Your task to perform on an android device: turn off notifications settings in the gmail app Image 0: 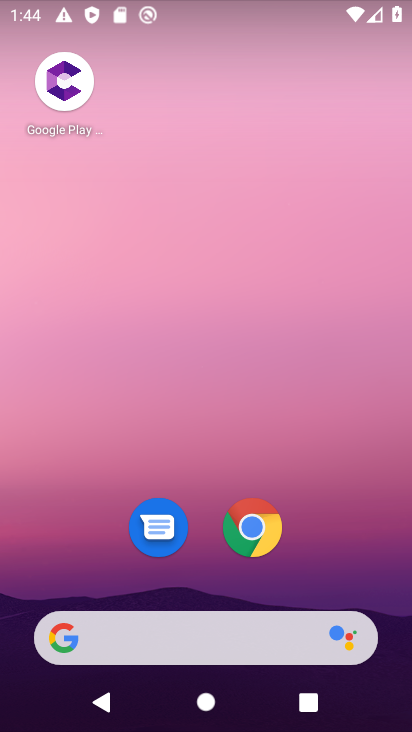
Step 0: drag from (193, 385) to (232, 26)
Your task to perform on an android device: turn off notifications settings in the gmail app Image 1: 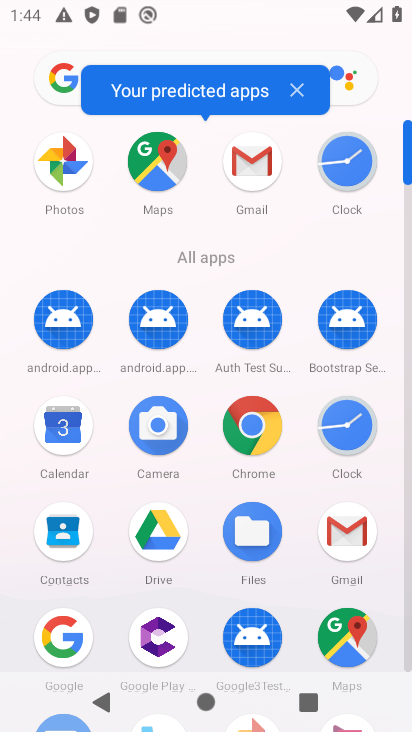
Step 1: click (254, 203)
Your task to perform on an android device: turn off notifications settings in the gmail app Image 2: 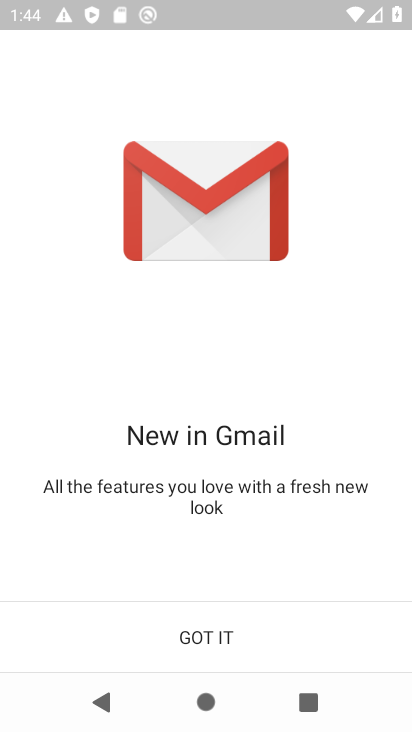
Step 2: click (217, 622)
Your task to perform on an android device: turn off notifications settings in the gmail app Image 3: 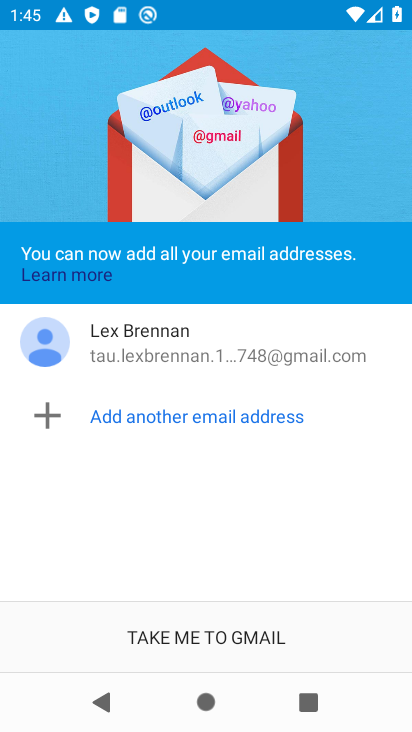
Step 3: click (208, 625)
Your task to perform on an android device: turn off notifications settings in the gmail app Image 4: 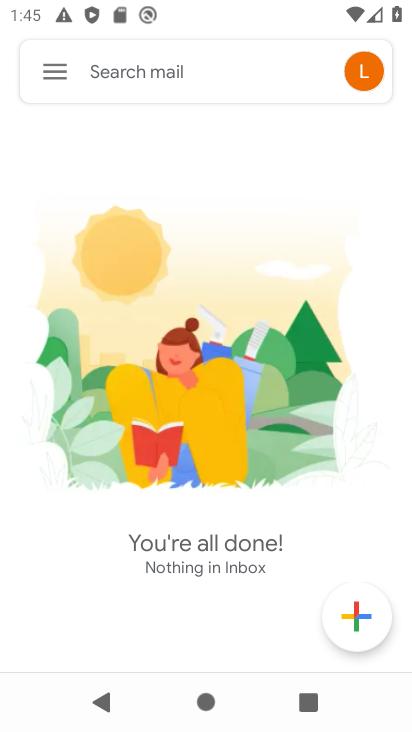
Step 4: click (62, 66)
Your task to perform on an android device: turn off notifications settings in the gmail app Image 5: 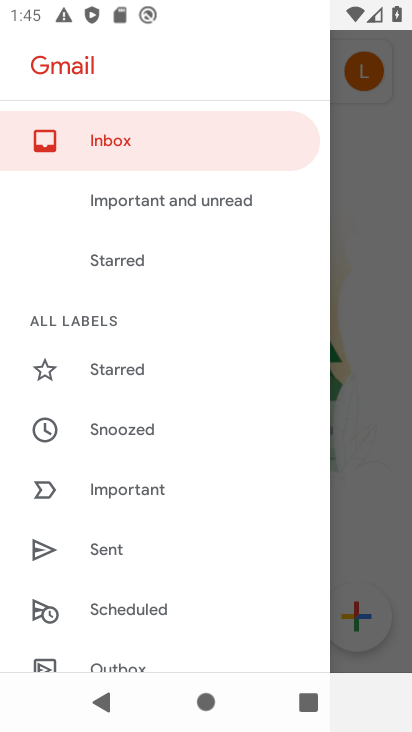
Step 5: drag from (137, 570) to (149, 297)
Your task to perform on an android device: turn off notifications settings in the gmail app Image 6: 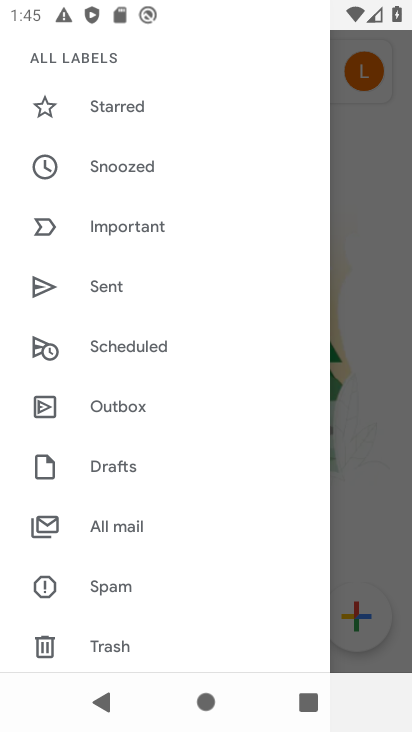
Step 6: drag from (140, 553) to (186, 331)
Your task to perform on an android device: turn off notifications settings in the gmail app Image 7: 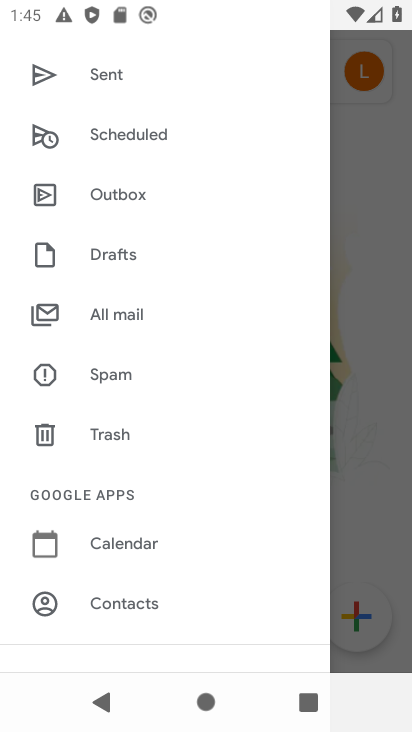
Step 7: drag from (134, 549) to (211, 163)
Your task to perform on an android device: turn off notifications settings in the gmail app Image 8: 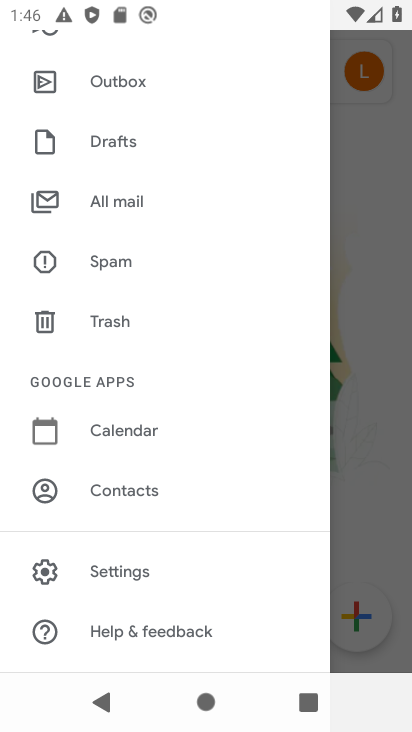
Step 8: click (111, 571)
Your task to perform on an android device: turn off notifications settings in the gmail app Image 9: 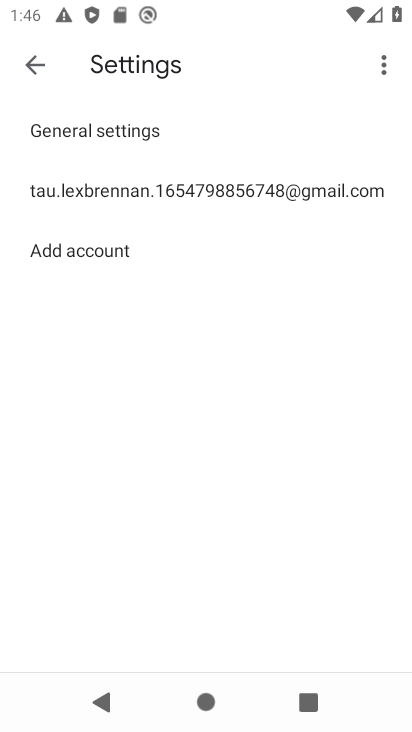
Step 9: click (215, 194)
Your task to perform on an android device: turn off notifications settings in the gmail app Image 10: 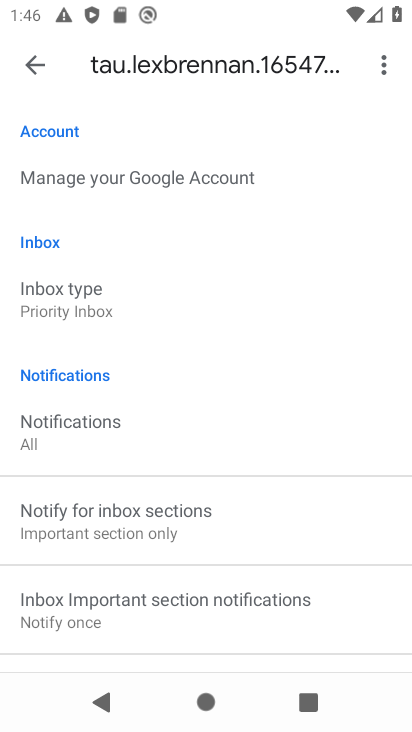
Step 10: click (97, 453)
Your task to perform on an android device: turn off notifications settings in the gmail app Image 11: 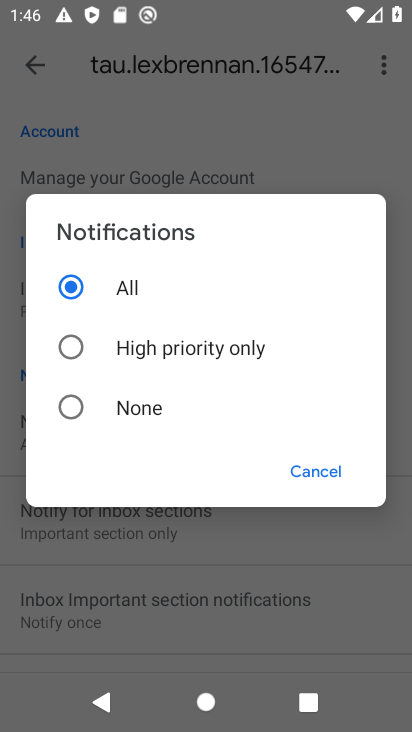
Step 11: click (73, 410)
Your task to perform on an android device: turn off notifications settings in the gmail app Image 12: 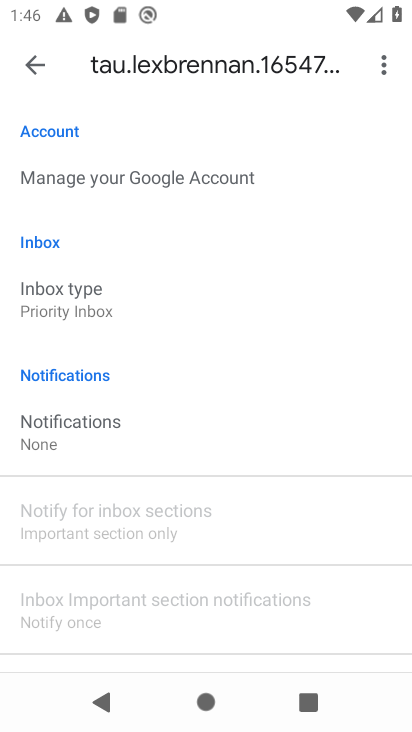
Step 12: task complete